Your task to perform on an android device: Open the phone app and click the voicemail tab. Image 0: 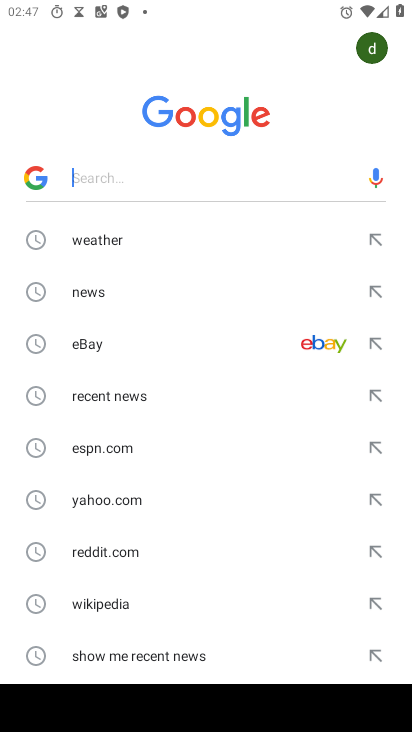
Step 0: press home button
Your task to perform on an android device: Open the phone app and click the voicemail tab. Image 1: 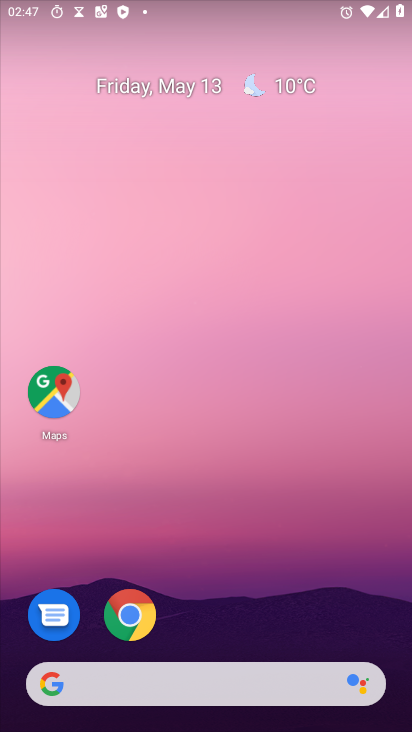
Step 1: drag from (194, 592) to (93, 99)
Your task to perform on an android device: Open the phone app and click the voicemail tab. Image 2: 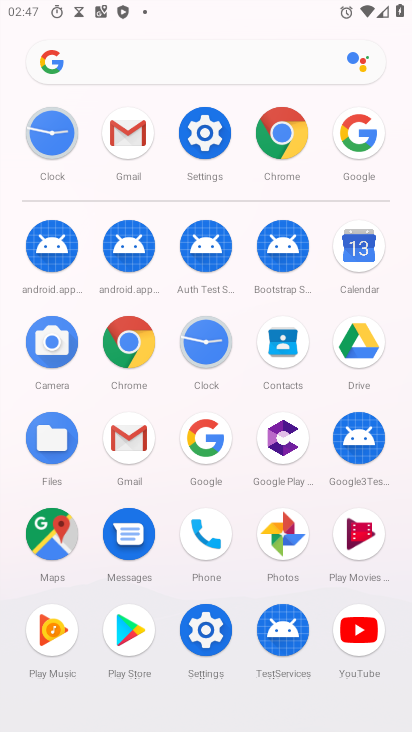
Step 2: click (197, 546)
Your task to perform on an android device: Open the phone app and click the voicemail tab. Image 3: 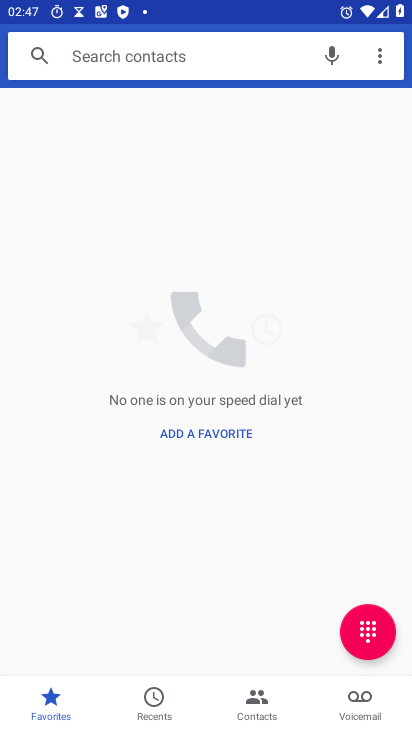
Step 3: click (363, 702)
Your task to perform on an android device: Open the phone app and click the voicemail tab. Image 4: 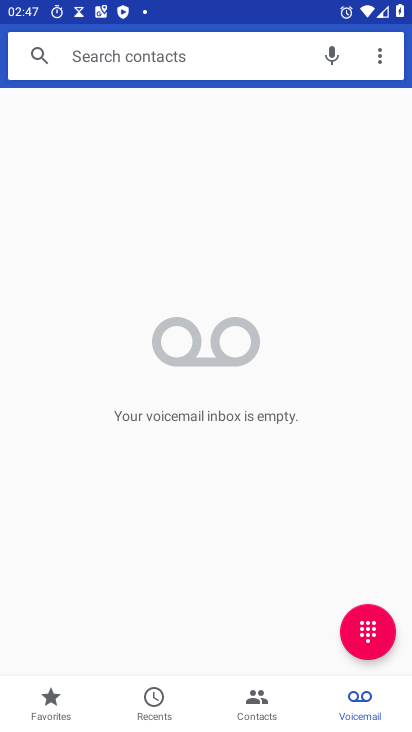
Step 4: task complete